Your task to perform on an android device: delete browsing data in the chrome app Image 0: 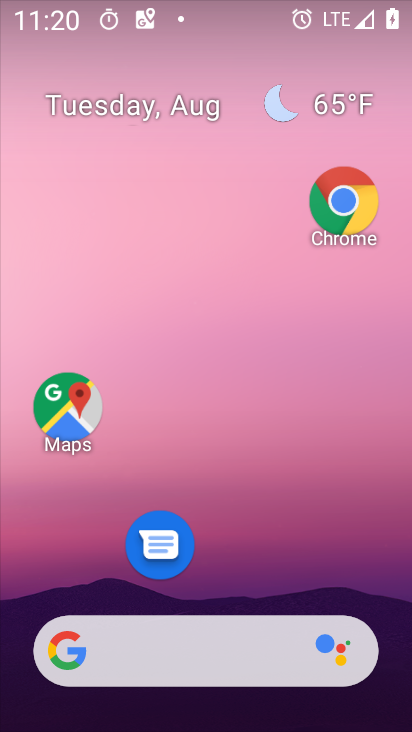
Step 0: drag from (250, 564) to (211, 13)
Your task to perform on an android device: delete browsing data in the chrome app Image 1: 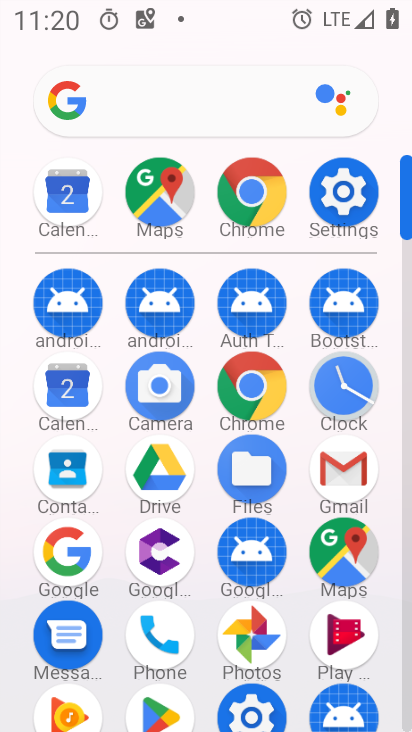
Step 1: click (249, 206)
Your task to perform on an android device: delete browsing data in the chrome app Image 2: 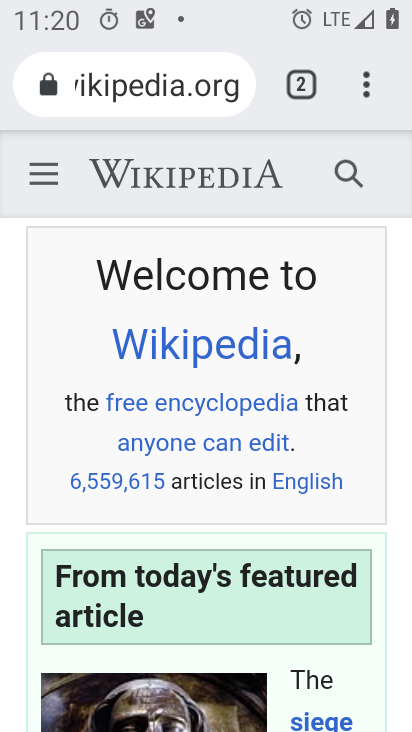
Step 2: click (366, 85)
Your task to perform on an android device: delete browsing data in the chrome app Image 3: 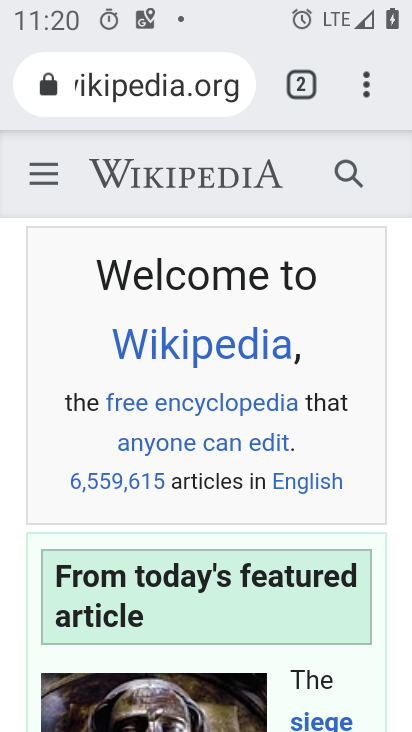
Step 3: click (366, 96)
Your task to perform on an android device: delete browsing data in the chrome app Image 4: 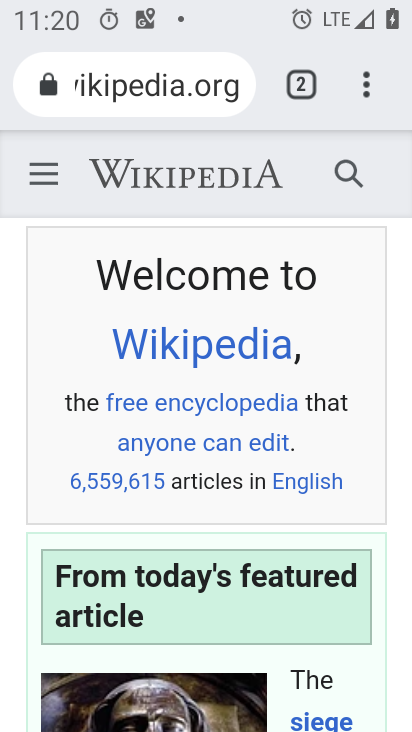
Step 4: click (367, 102)
Your task to perform on an android device: delete browsing data in the chrome app Image 5: 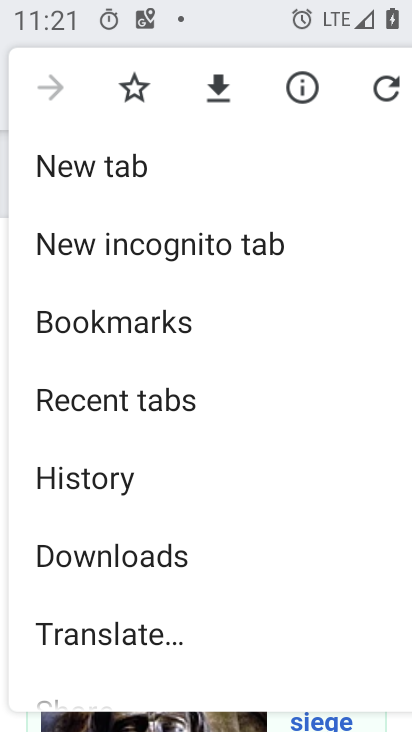
Step 5: click (102, 473)
Your task to perform on an android device: delete browsing data in the chrome app Image 6: 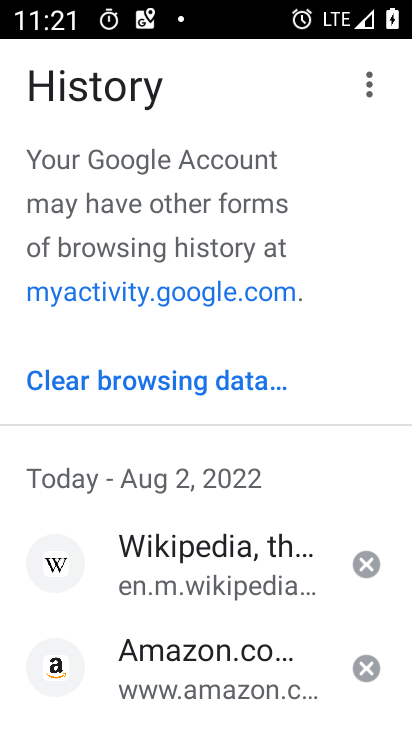
Step 6: click (134, 384)
Your task to perform on an android device: delete browsing data in the chrome app Image 7: 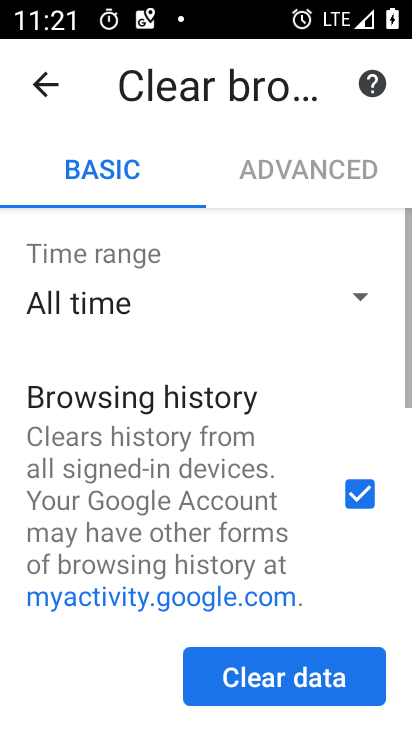
Step 7: click (281, 682)
Your task to perform on an android device: delete browsing data in the chrome app Image 8: 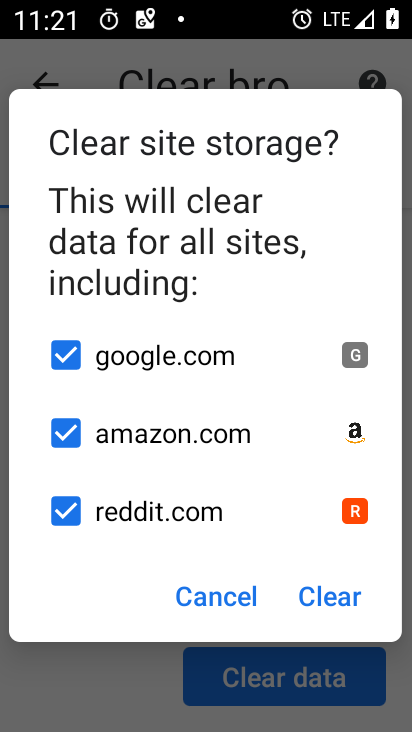
Step 8: click (326, 613)
Your task to perform on an android device: delete browsing data in the chrome app Image 9: 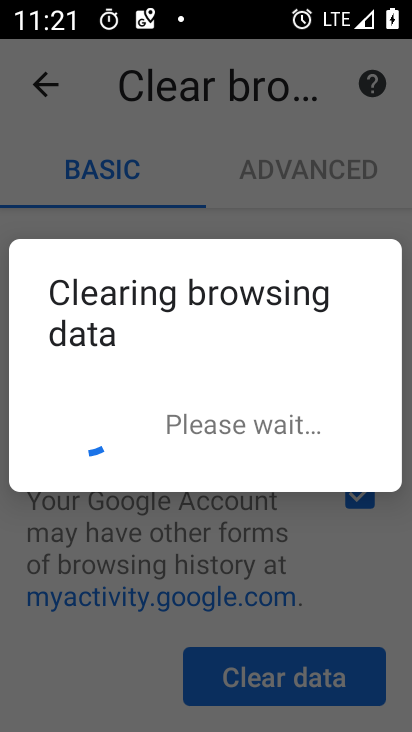
Step 9: task complete